Your task to perform on an android device: change text size in settings app Image 0: 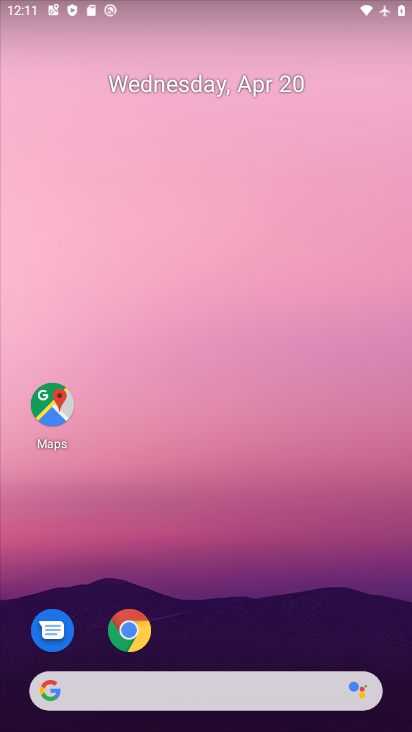
Step 0: drag from (190, 697) to (360, 190)
Your task to perform on an android device: change text size in settings app Image 1: 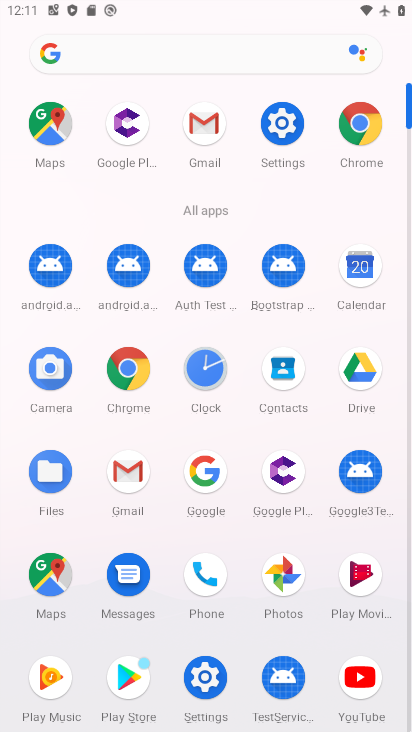
Step 1: click (283, 131)
Your task to perform on an android device: change text size in settings app Image 2: 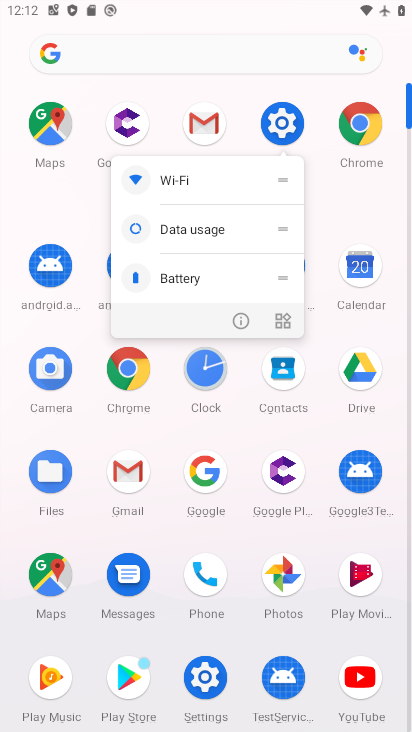
Step 2: click (287, 125)
Your task to perform on an android device: change text size in settings app Image 3: 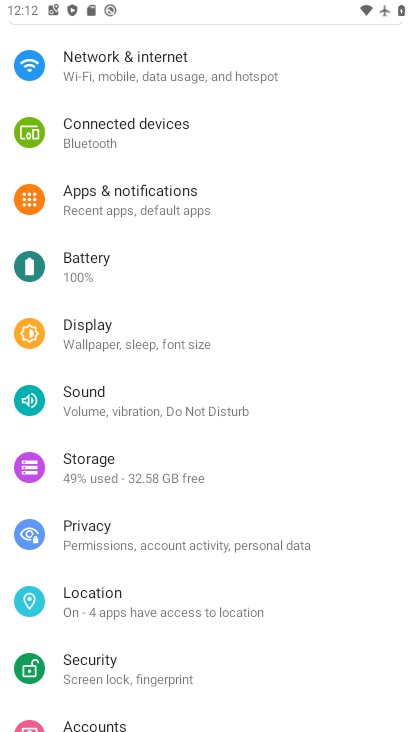
Step 3: click (165, 344)
Your task to perform on an android device: change text size in settings app Image 4: 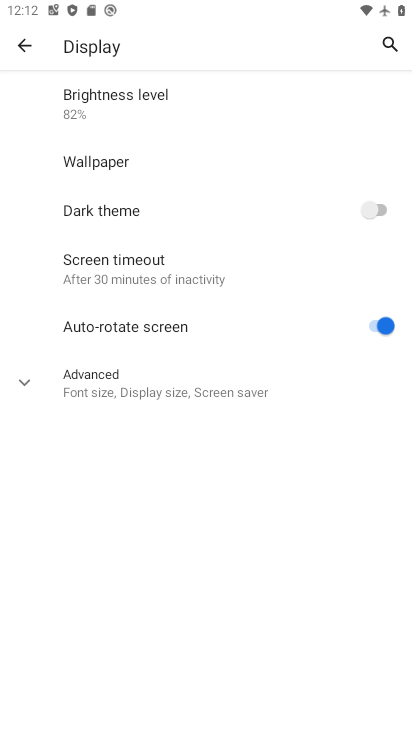
Step 4: click (92, 373)
Your task to perform on an android device: change text size in settings app Image 5: 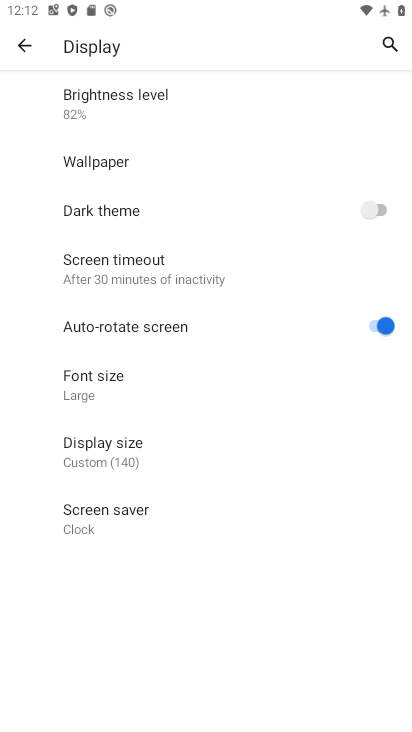
Step 5: click (113, 376)
Your task to perform on an android device: change text size in settings app Image 6: 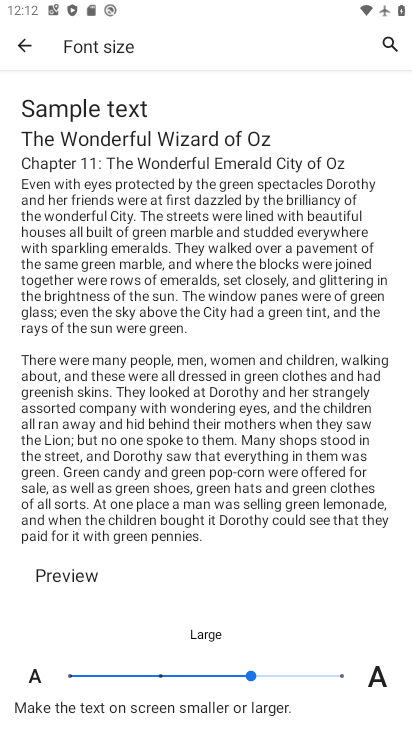
Step 6: click (341, 676)
Your task to perform on an android device: change text size in settings app Image 7: 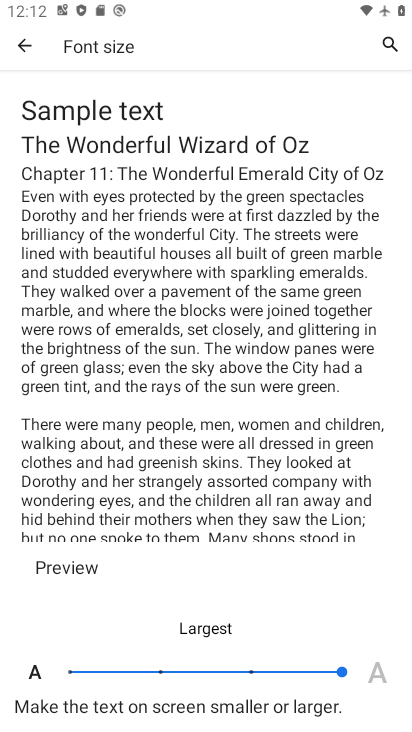
Step 7: task complete